Your task to perform on an android device: set an alarm Image 0: 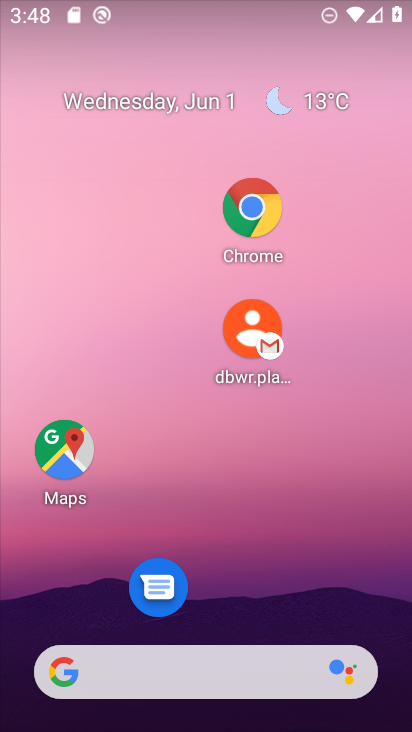
Step 0: drag from (252, 648) to (163, 305)
Your task to perform on an android device: set an alarm Image 1: 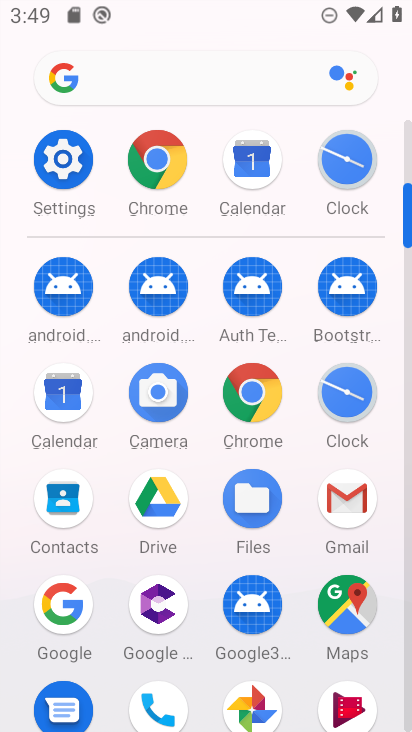
Step 1: click (344, 397)
Your task to perform on an android device: set an alarm Image 2: 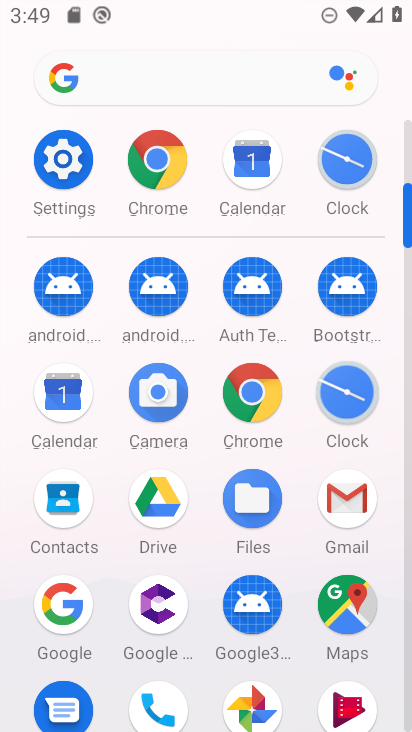
Step 2: click (344, 397)
Your task to perform on an android device: set an alarm Image 3: 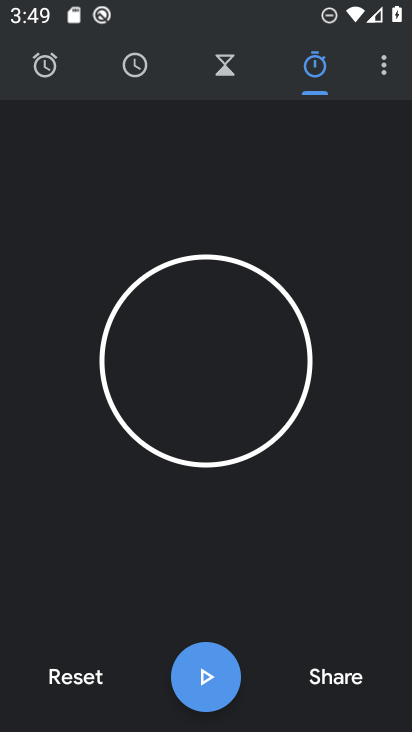
Step 3: click (344, 397)
Your task to perform on an android device: set an alarm Image 4: 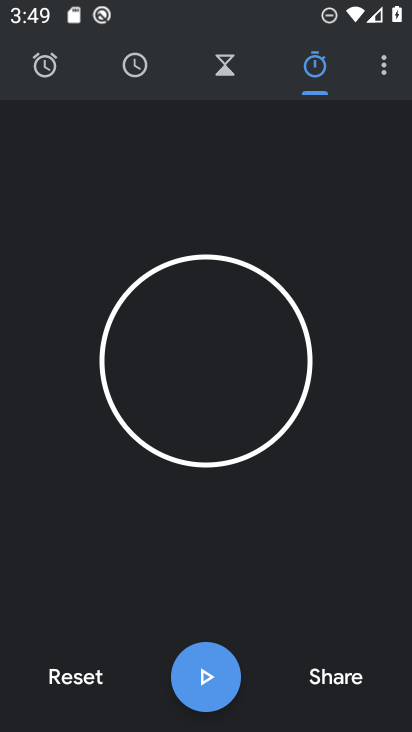
Step 4: click (343, 396)
Your task to perform on an android device: set an alarm Image 5: 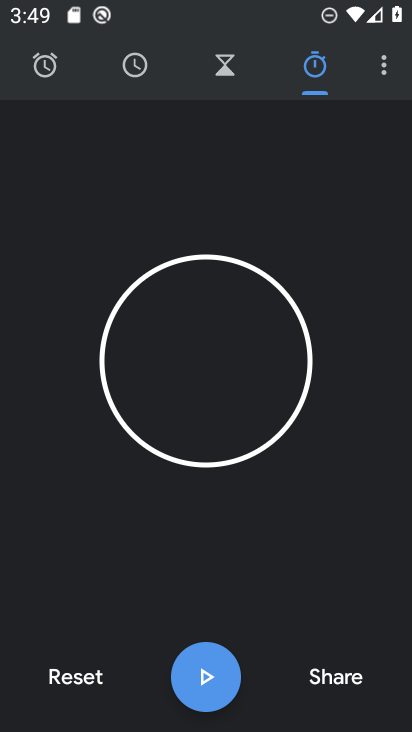
Step 5: click (46, 60)
Your task to perform on an android device: set an alarm Image 6: 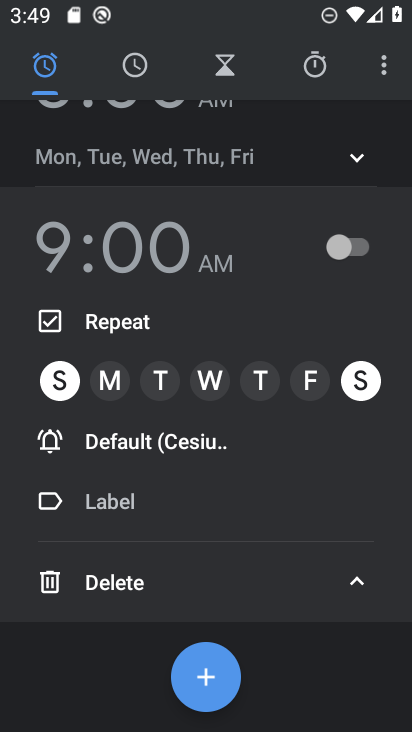
Step 6: click (350, 246)
Your task to perform on an android device: set an alarm Image 7: 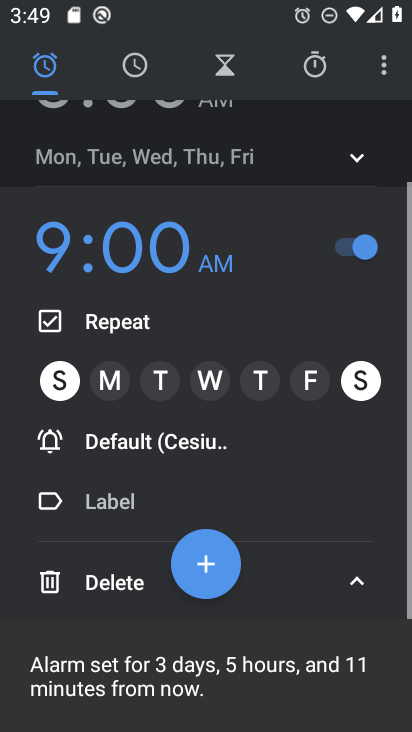
Step 7: task complete